Your task to perform on an android device: create a new album in the google photos Image 0: 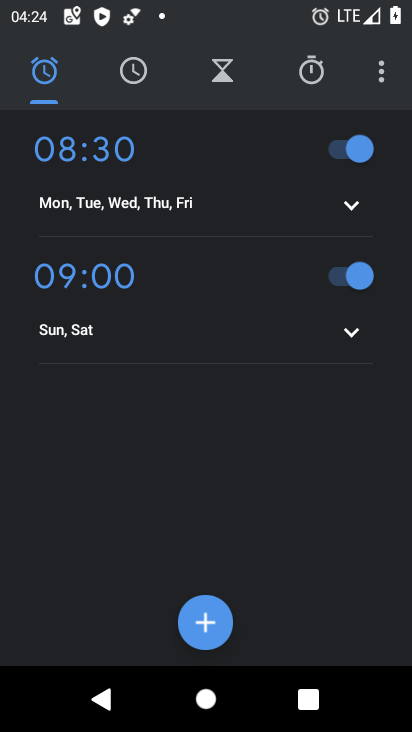
Step 0: press home button
Your task to perform on an android device: create a new album in the google photos Image 1: 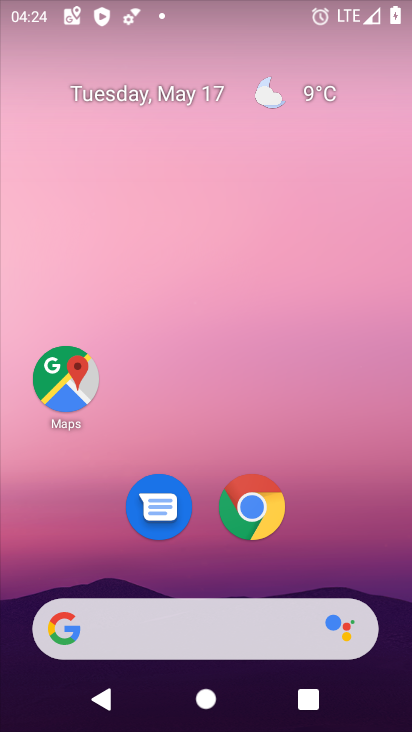
Step 1: drag from (334, 436) to (235, 84)
Your task to perform on an android device: create a new album in the google photos Image 2: 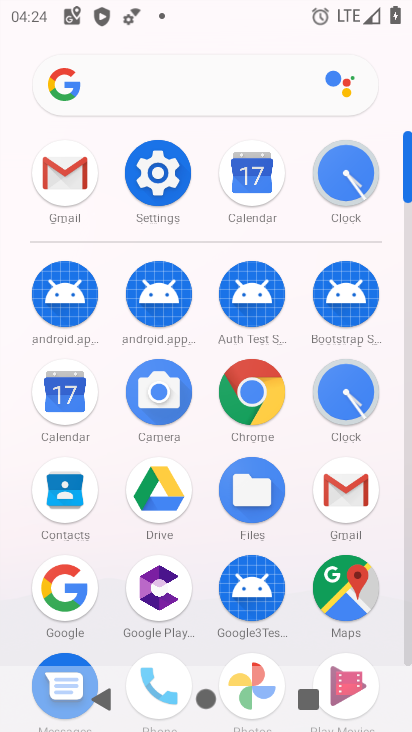
Step 2: drag from (297, 637) to (285, 188)
Your task to perform on an android device: create a new album in the google photos Image 3: 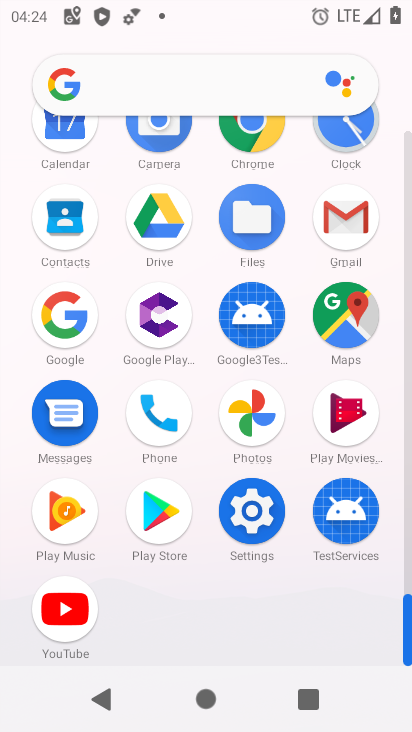
Step 3: click (267, 416)
Your task to perform on an android device: create a new album in the google photos Image 4: 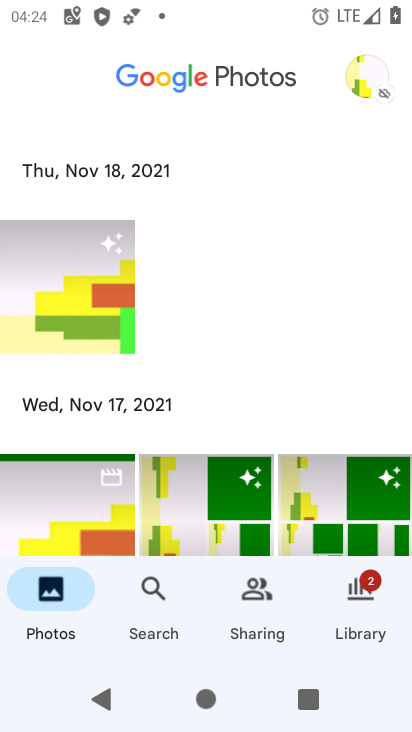
Step 4: click (366, 599)
Your task to perform on an android device: create a new album in the google photos Image 5: 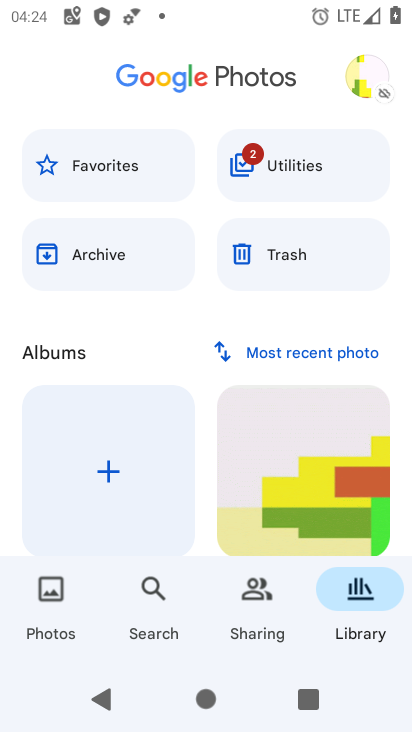
Step 5: click (94, 479)
Your task to perform on an android device: create a new album in the google photos Image 6: 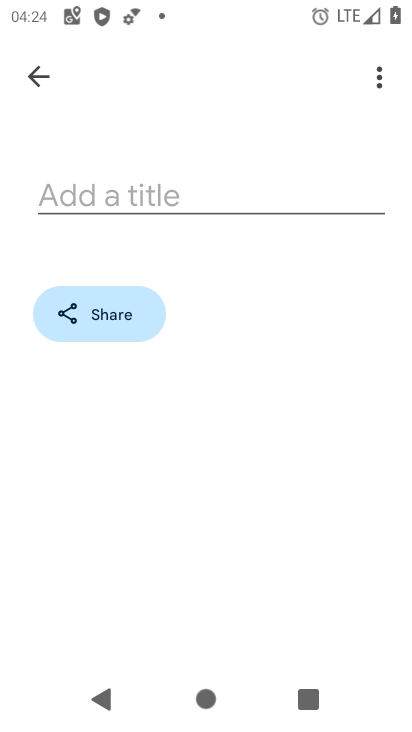
Step 6: click (140, 197)
Your task to perform on an android device: create a new album in the google photos Image 7: 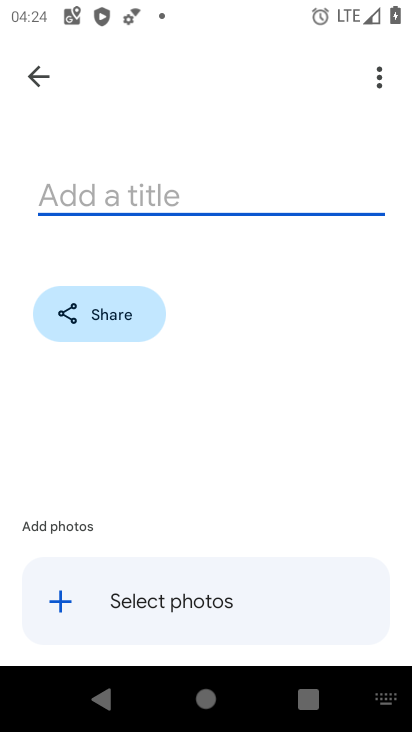
Step 7: type "hffhfhfg"
Your task to perform on an android device: create a new album in the google photos Image 8: 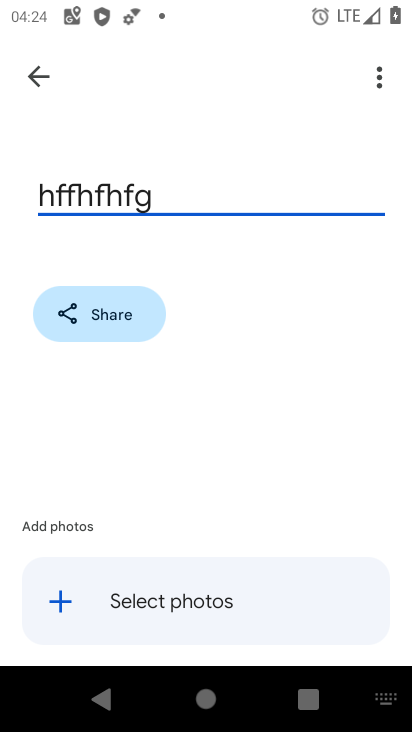
Step 8: click (135, 601)
Your task to perform on an android device: create a new album in the google photos Image 9: 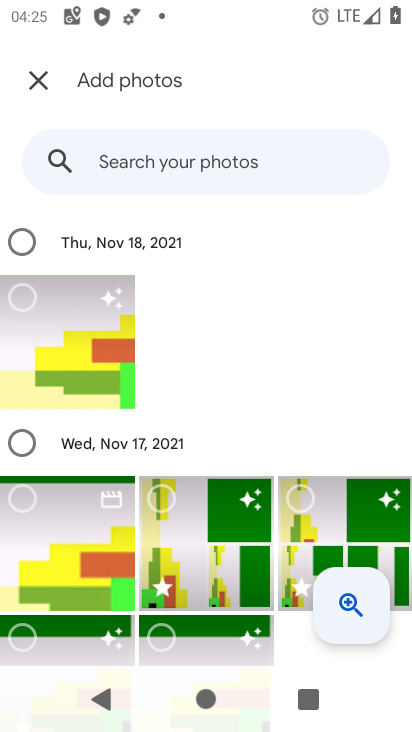
Step 9: click (64, 320)
Your task to perform on an android device: create a new album in the google photos Image 10: 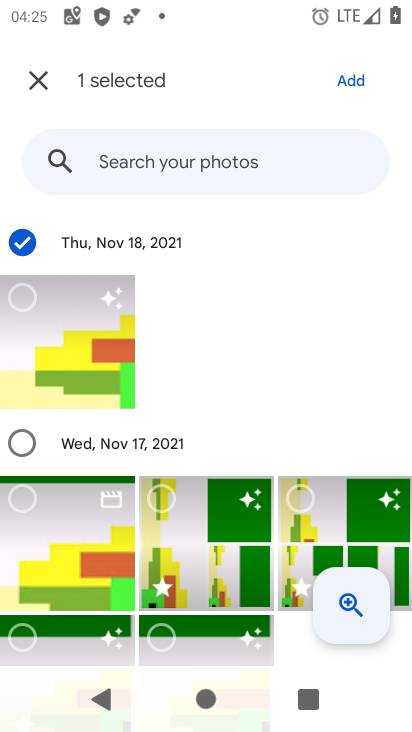
Step 10: click (89, 523)
Your task to perform on an android device: create a new album in the google photos Image 11: 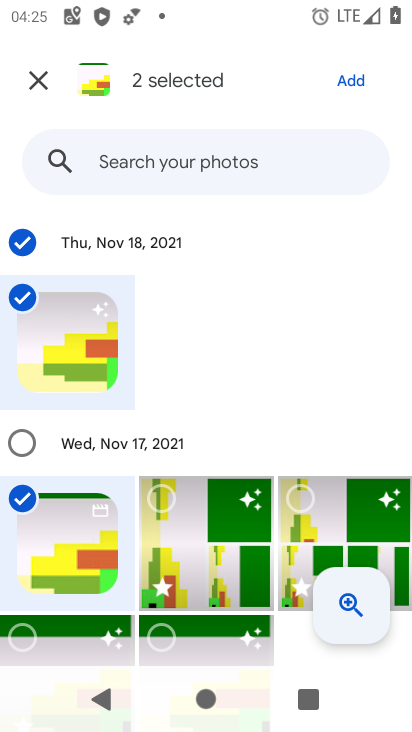
Step 11: click (357, 79)
Your task to perform on an android device: create a new album in the google photos Image 12: 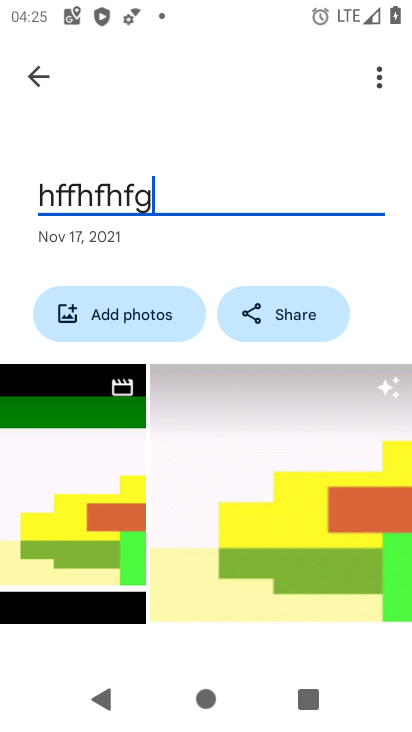
Step 12: task complete